Your task to perform on an android device: Add razer thresher to the cart on target.com, then select checkout. Image 0: 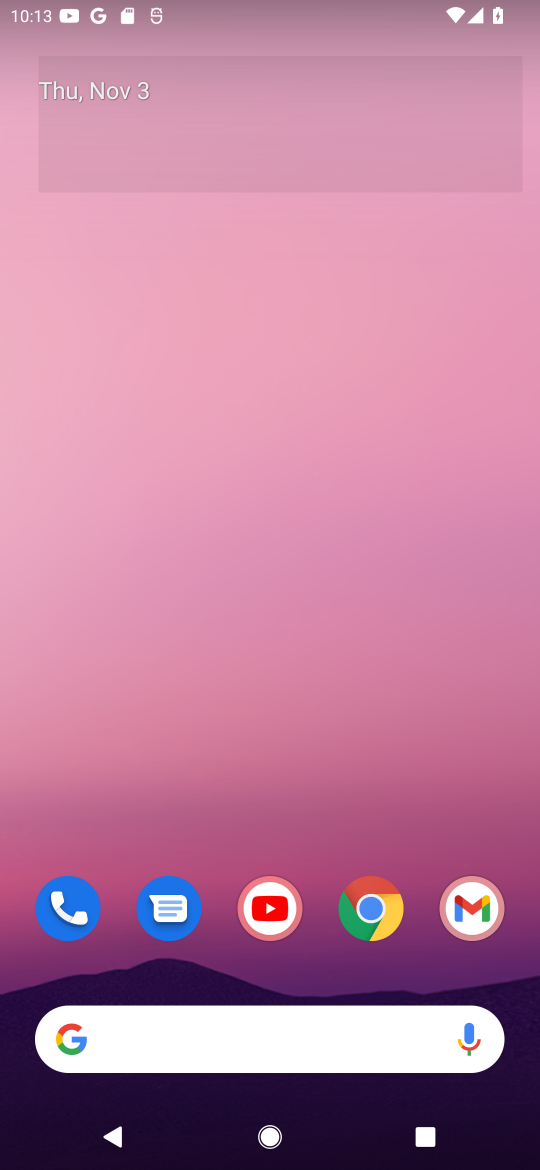
Step 0: click (379, 919)
Your task to perform on an android device: Add razer thresher to the cart on target.com, then select checkout. Image 1: 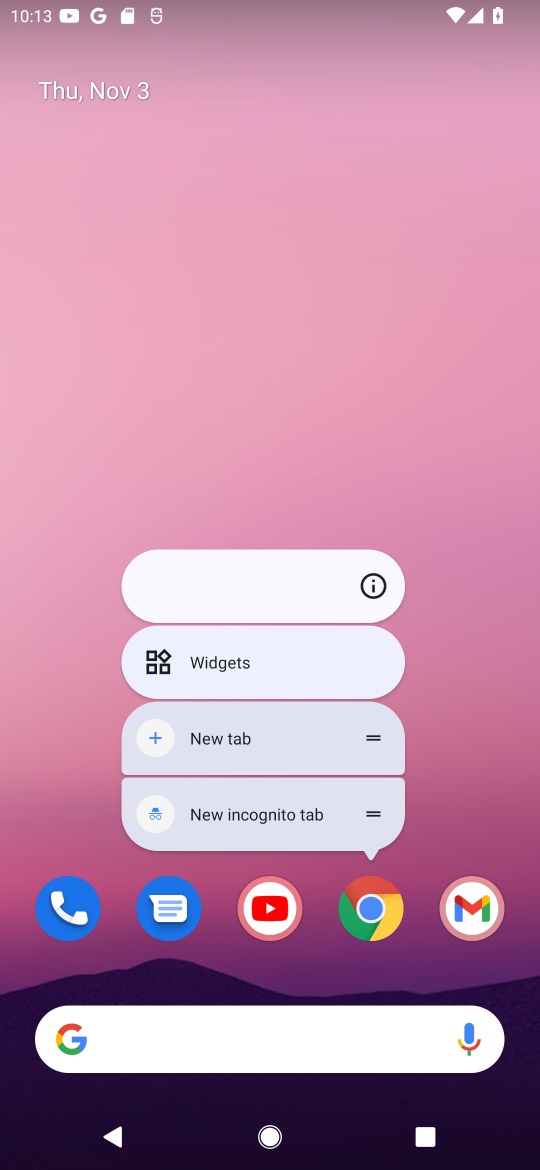
Step 1: click (358, 907)
Your task to perform on an android device: Add razer thresher to the cart on target.com, then select checkout. Image 2: 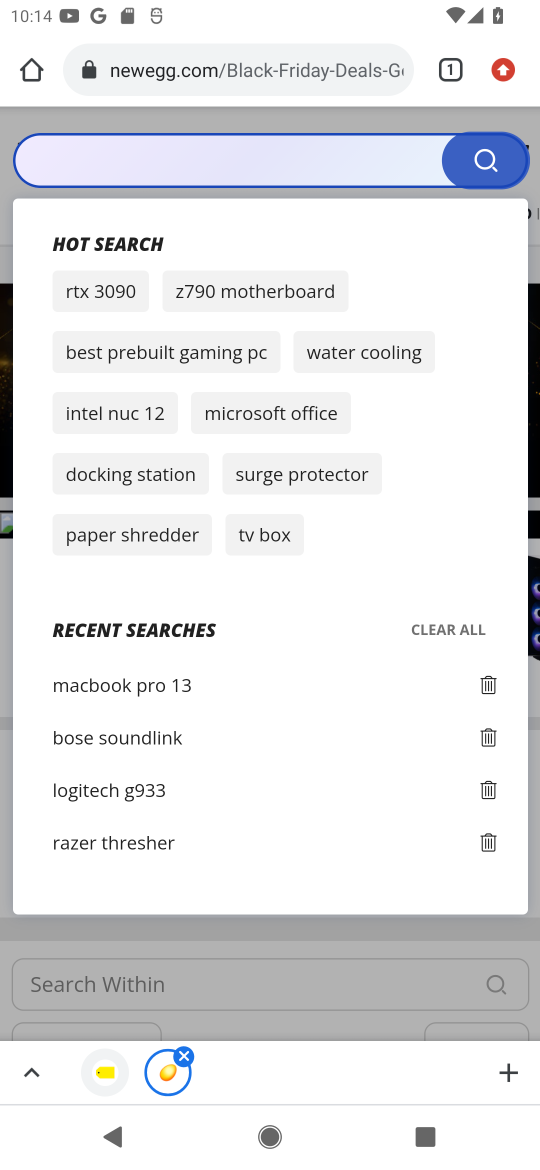
Step 2: click (31, 69)
Your task to perform on an android device: Add razer thresher to the cart on target.com, then select checkout. Image 3: 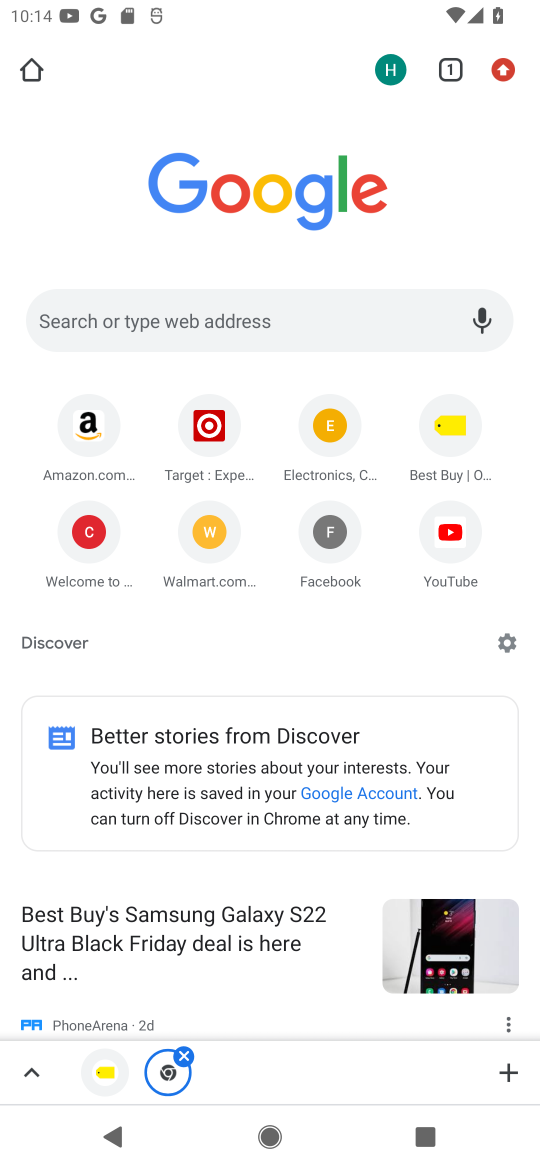
Step 3: click (210, 427)
Your task to perform on an android device: Add razer thresher to the cart on target.com, then select checkout. Image 4: 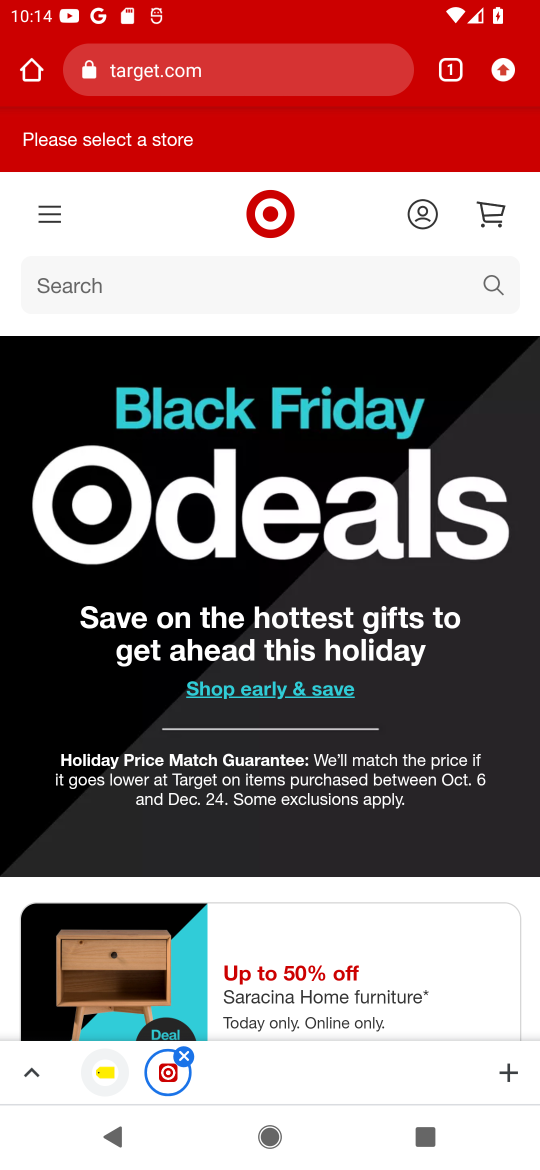
Step 4: click (491, 280)
Your task to perform on an android device: Add razer thresher to the cart on target.com, then select checkout. Image 5: 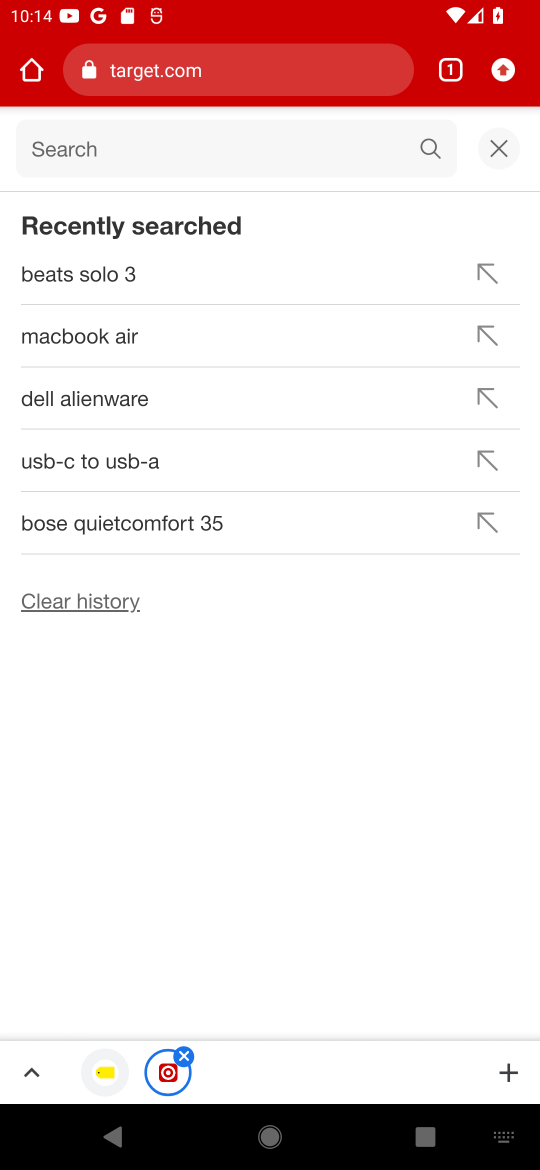
Step 5: type "razer thresher "
Your task to perform on an android device: Add razer thresher to the cart on target.com, then select checkout. Image 6: 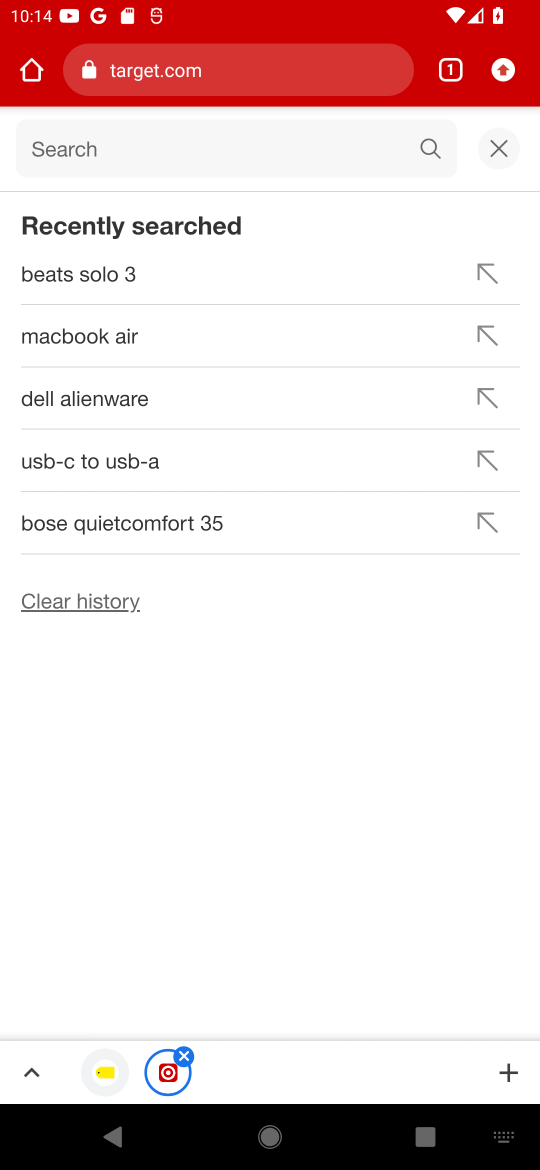
Step 6: press enter
Your task to perform on an android device: Add razer thresher to the cart on target.com, then select checkout. Image 7: 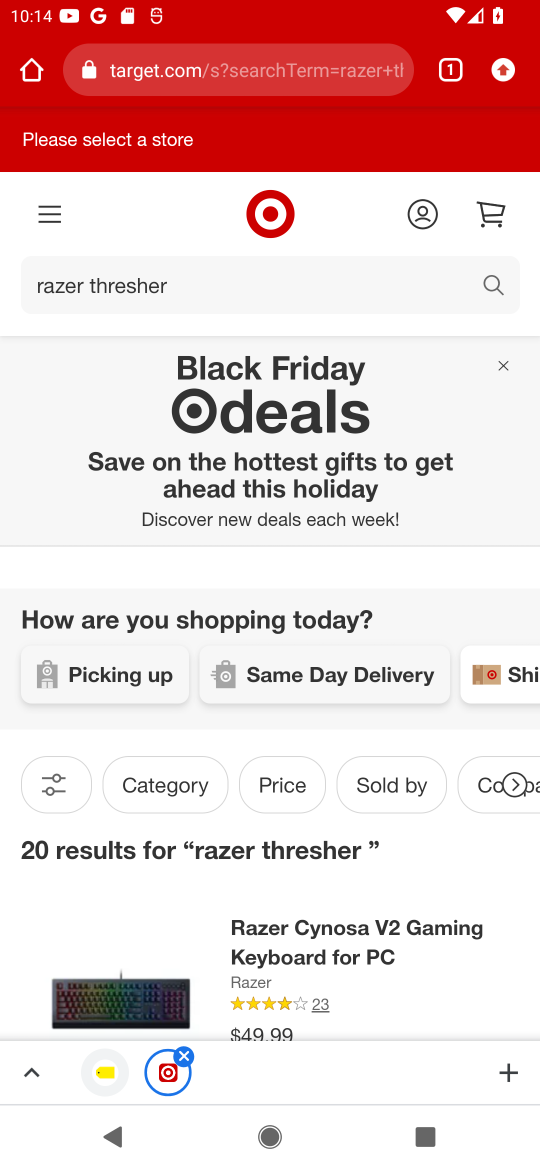
Step 7: task complete